Your task to perform on an android device: What's on my calendar tomorrow? Image 0: 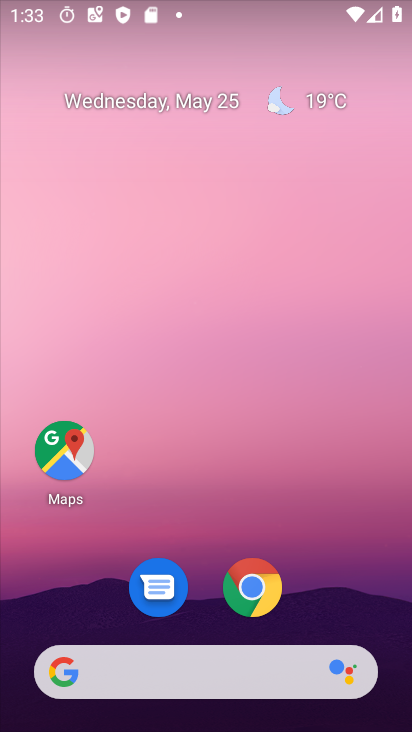
Step 0: drag from (184, 728) to (164, 106)
Your task to perform on an android device: What's on my calendar tomorrow? Image 1: 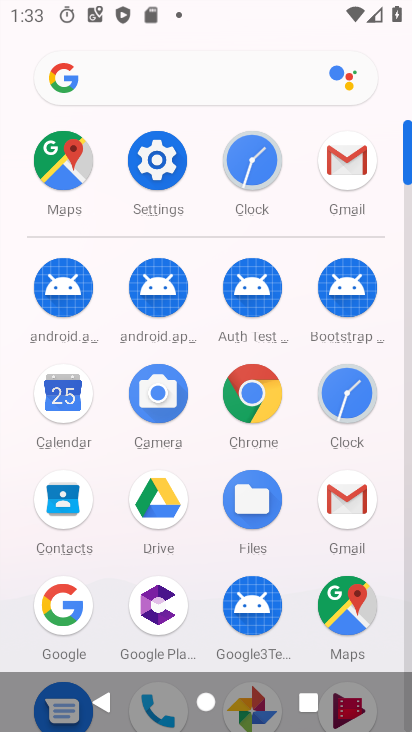
Step 1: click (63, 398)
Your task to perform on an android device: What's on my calendar tomorrow? Image 2: 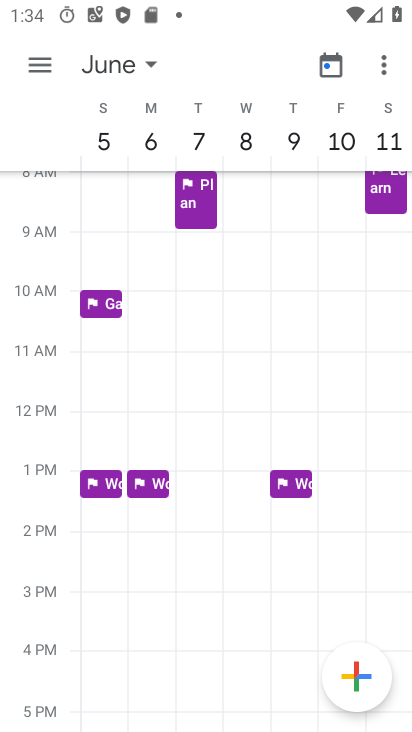
Step 2: drag from (106, 136) to (347, 128)
Your task to perform on an android device: What's on my calendar tomorrow? Image 3: 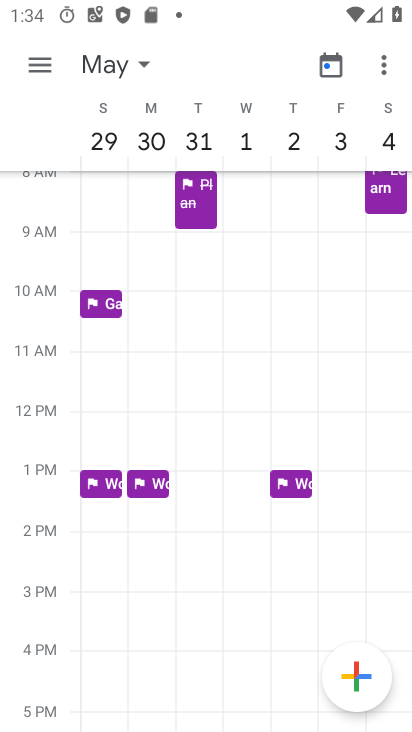
Step 3: drag from (124, 136) to (320, 133)
Your task to perform on an android device: What's on my calendar tomorrow? Image 4: 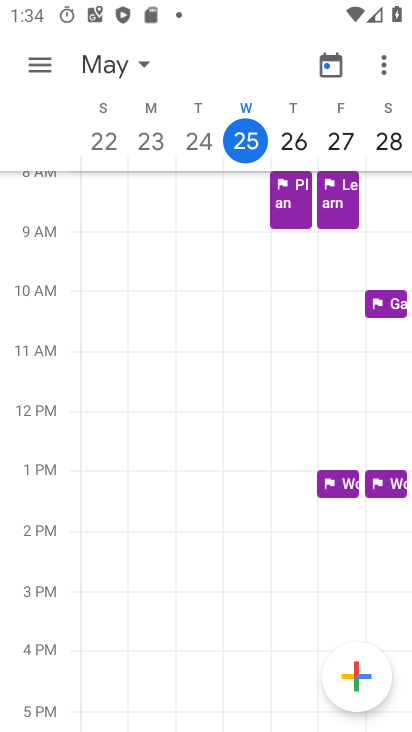
Step 4: click (296, 138)
Your task to perform on an android device: What's on my calendar tomorrow? Image 5: 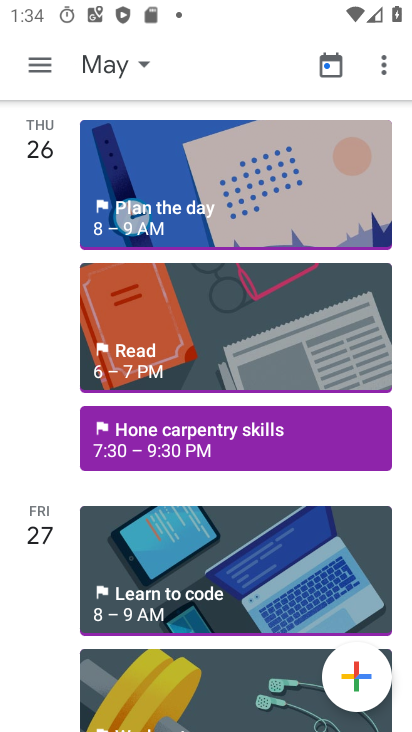
Step 5: task complete